Your task to perform on an android device: open the mobile data screen to see how much data has been used Image 0: 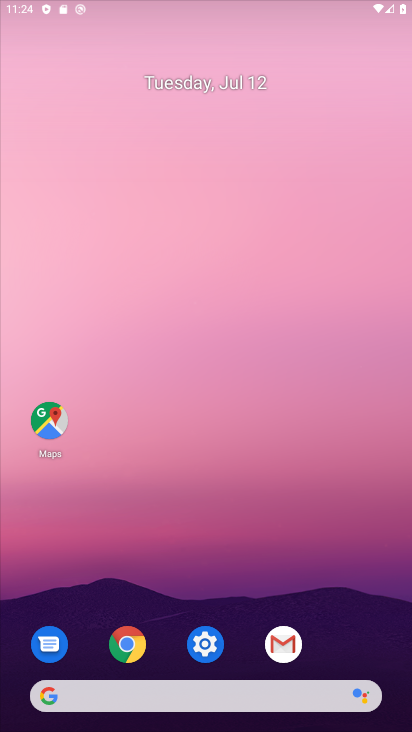
Step 0: press home button
Your task to perform on an android device: open the mobile data screen to see how much data has been used Image 1: 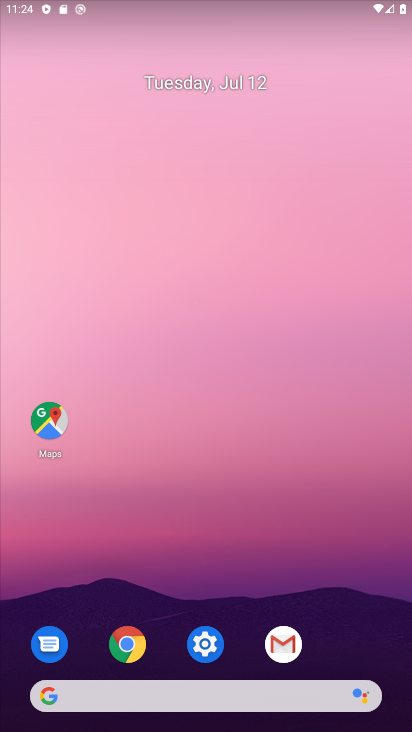
Step 1: click (203, 648)
Your task to perform on an android device: open the mobile data screen to see how much data has been used Image 2: 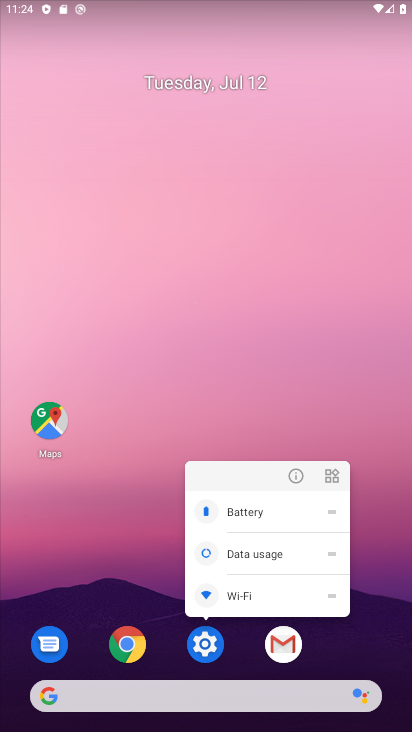
Step 2: click (213, 658)
Your task to perform on an android device: open the mobile data screen to see how much data has been used Image 3: 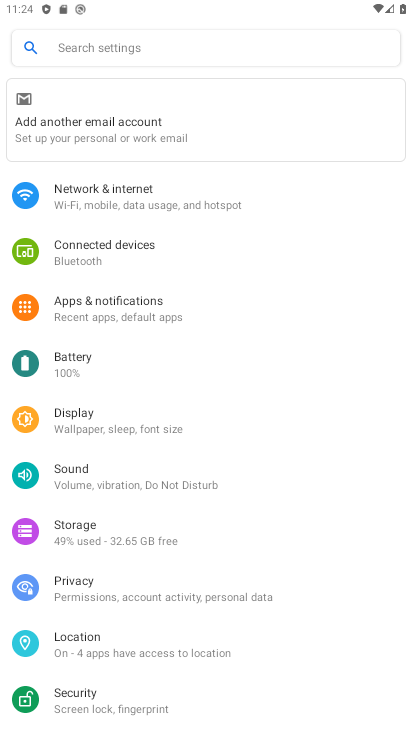
Step 3: click (115, 57)
Your task to perform on an android device: open the mobile data screen to see how much data has been used Image 4: 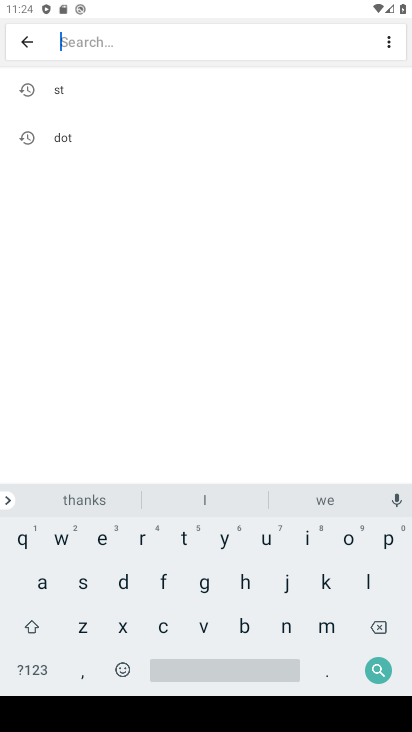
Step 4: click (115, 588)
Your task to perform on an android device: open the mobile data screen to see how much data has been used Image 5: 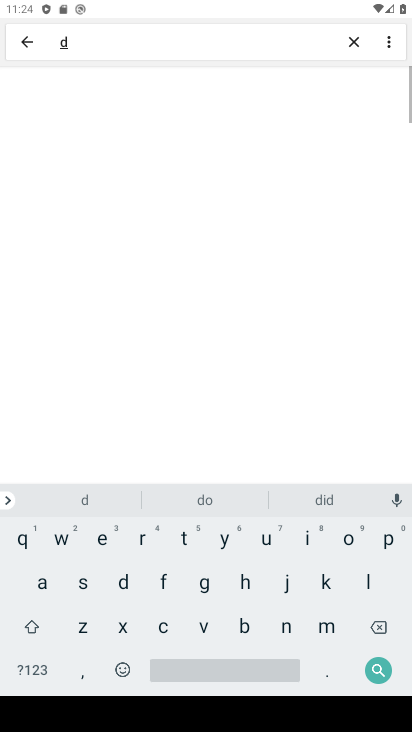
Step 5: click (38, 574)
Your task to perform on an android device: open the mobile data screen to see how much data has been used Image 6: 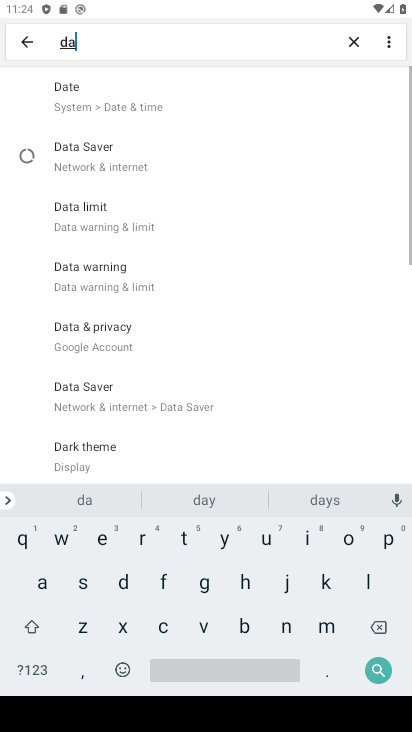
Step 6: click (184, 537)
Your task to perform on an android device: open the mobile data screen to see how much data has been used Image 7: 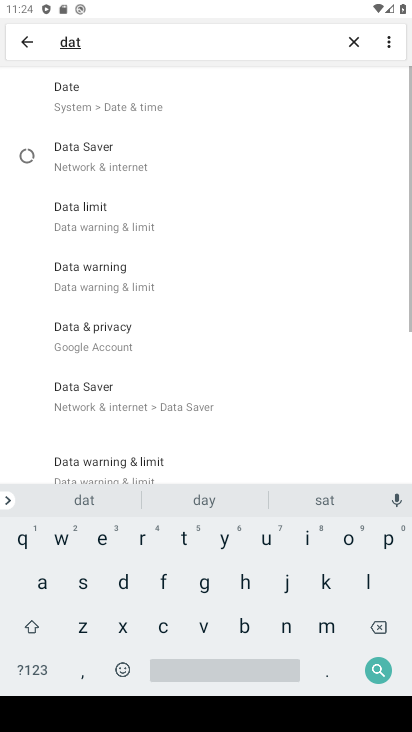
Step 7: click (38, 583)
Your task to perform on an android device: open the mobile data screen to see how much data has been used Image 8: 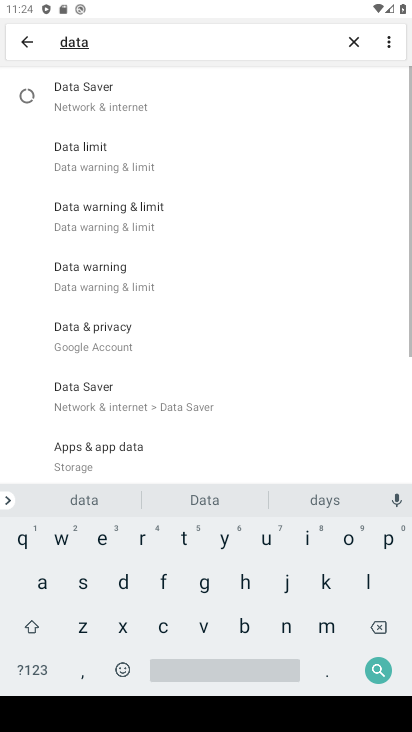
Step 8: click (205, 667)
Your task to perform on an android device: open the mobile data screen to see how much data has been used Image 9: 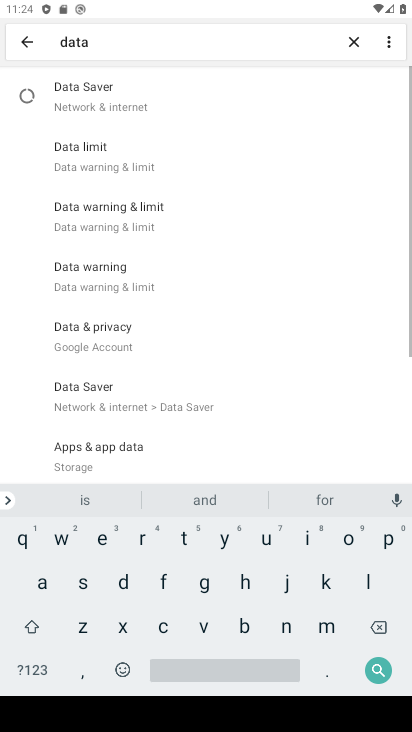
Step 9: click (270, 544)
Your task to perform on an android device: open the mobile data screen to see how much data has been used Image 10: 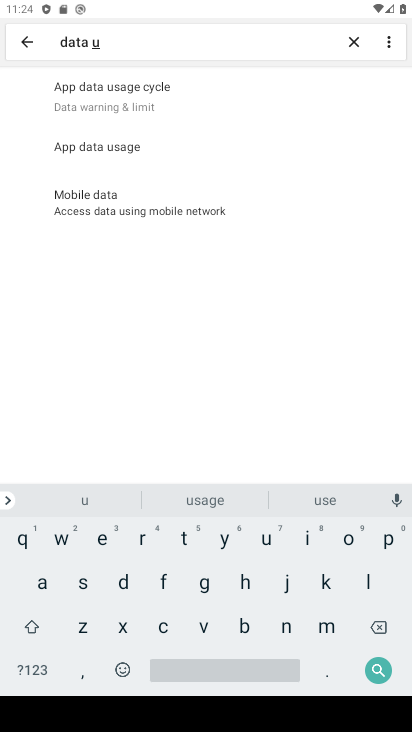
Step 10: click (115, 153)
Your task to perform on an android device: open the mobile data screen to see how much data has been used Image 11: 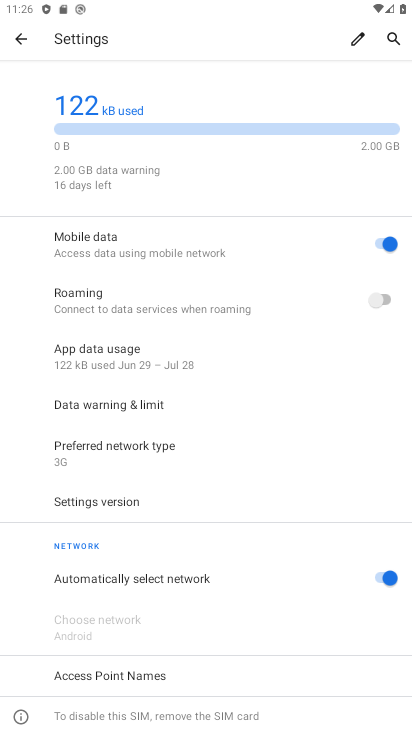
Step 11: task complete